Your task to perform on an android device: Go to display settings Image 0: 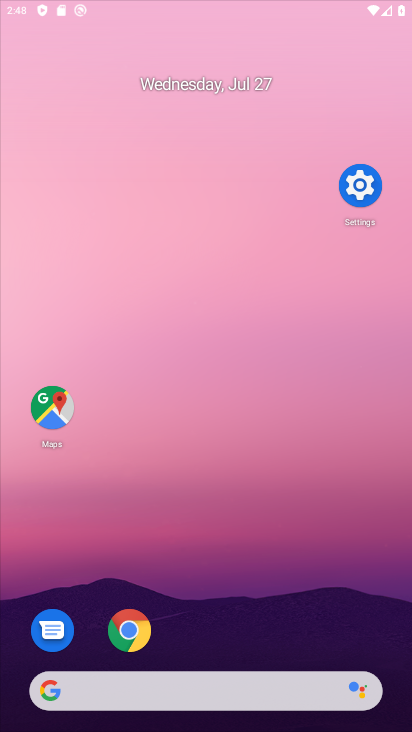
Step 0: press home button
Your task to perform on an android device: Go to display settings Image 1: 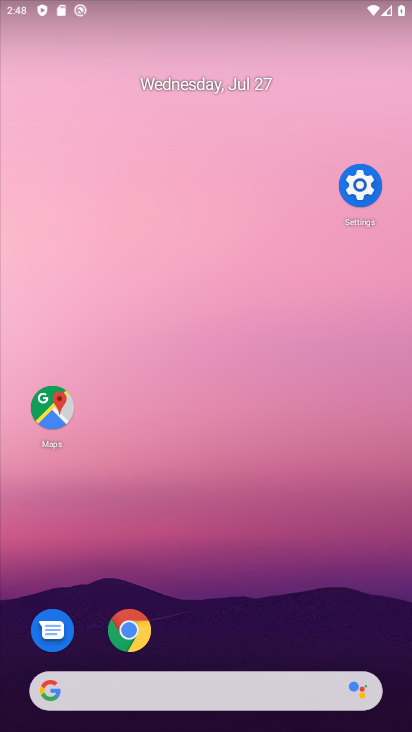
Step 1: drag from (212, 624) to (192, 181)
Your task to perform on an android device: Go to display settings Image 2: 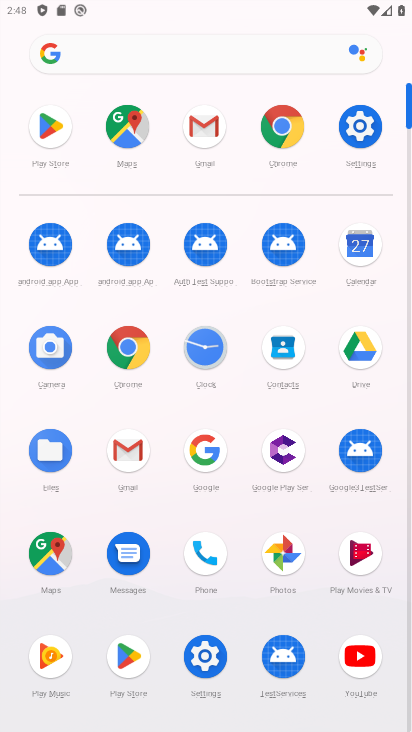
Step 2: click (364, 123)
Your task to perform on an android device: Go to display settings Image 3: 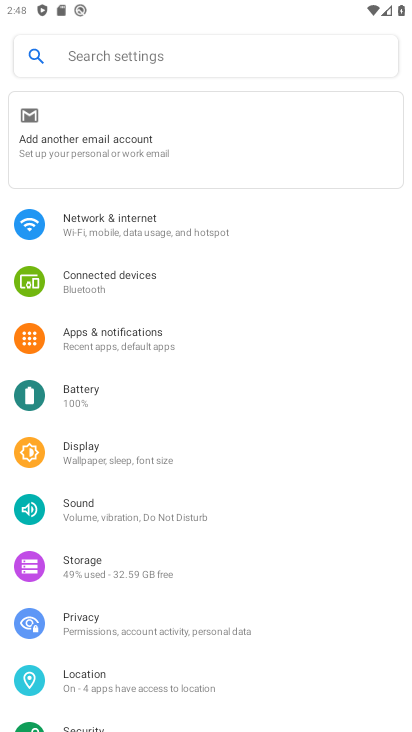
Step 3: click (70, 452)
Your task to perform on an android device: Go to display settings Image 4: 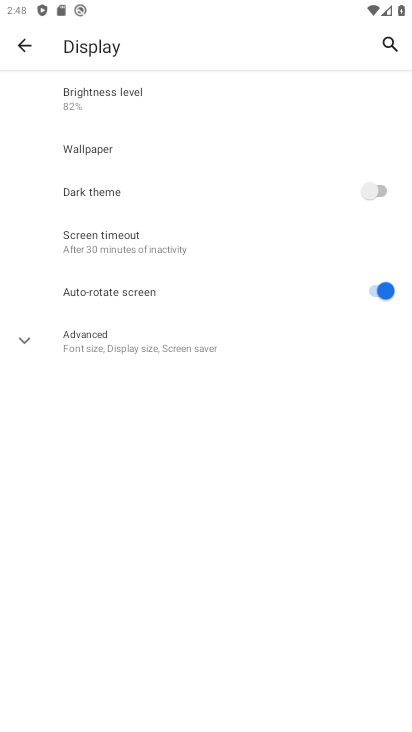
Step 4: task complete